Your task to perform on an android device: open chrome and create a bookmark for the current page Image 0: 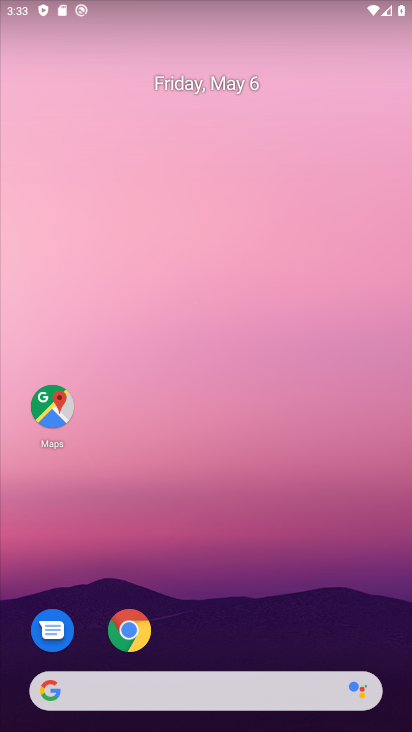
Step 0: click (138, 622)
Your task to perform on an android device: open chrome and create a bookmark for the current page Image 1: 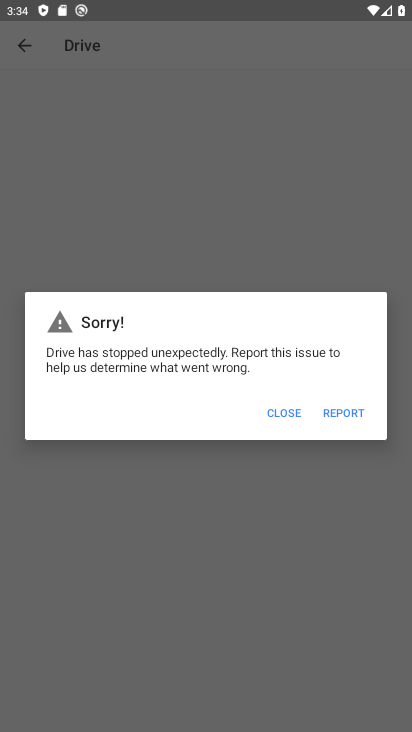
Step 1: press back button
Your task to perform on an android device: open chrome and create a bookmark for the current page Image 2: 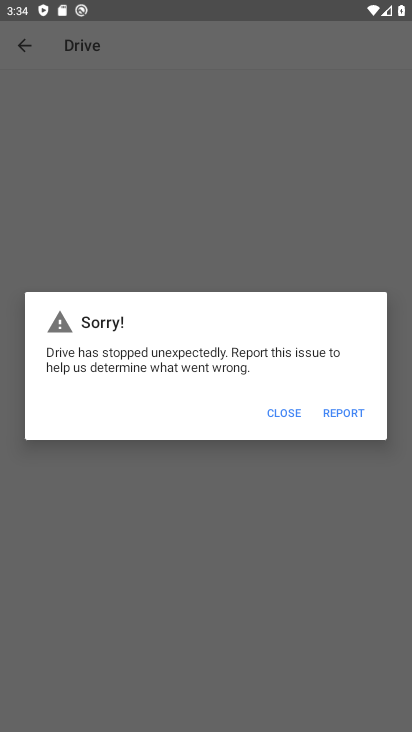
Step 2: press back button
Your task to perform on an android device: open chrome and create a bookmark for the current page Image 3: 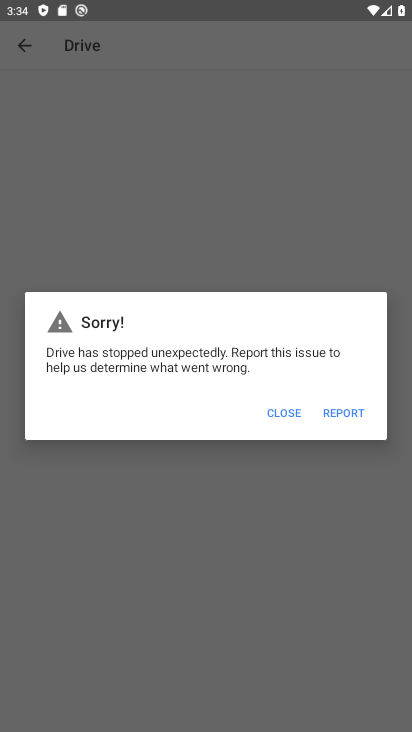
Step 3: press home button
Your task to perform on an android device: open chrome and create a bookmark for the current page Image 4: 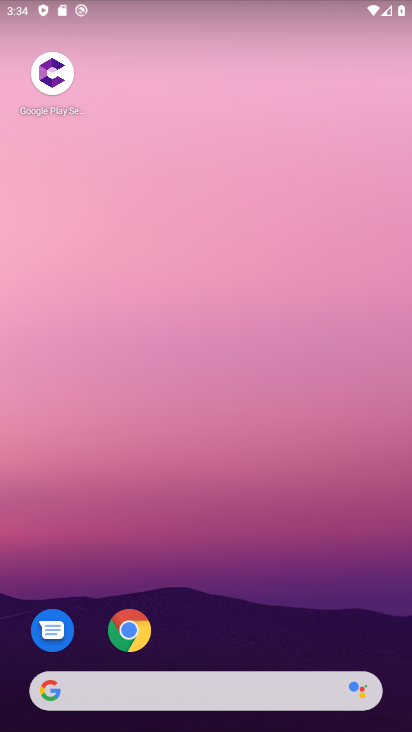
Step 4: click (117, 633)
Your task to perform on an android device: open chrome and create a bookmark for the current page Image 5: 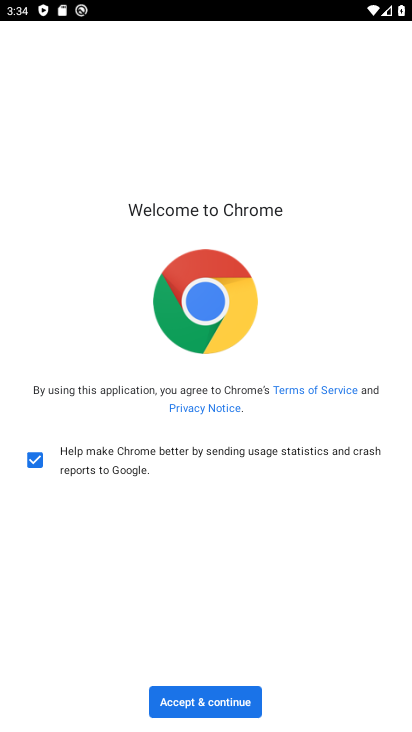
Step 5: click (231, 680)
Your task to perform on an android device: open chrome and create a bookmark for the current page Image 6: 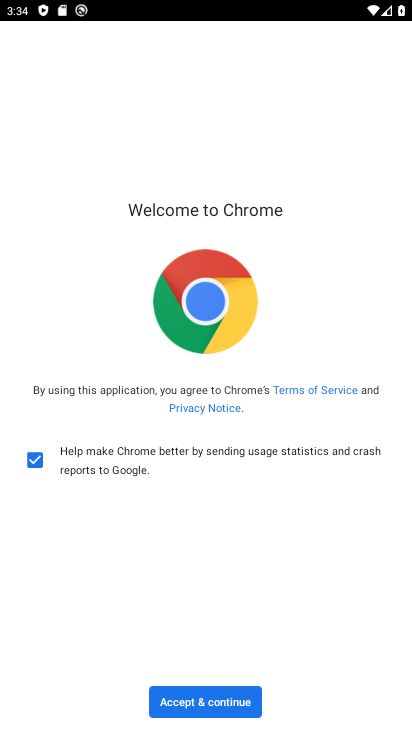
Step 6: click (204, 702)
Your task to perform on an android device: open chrome and create a bookmark for the current page Image 7: 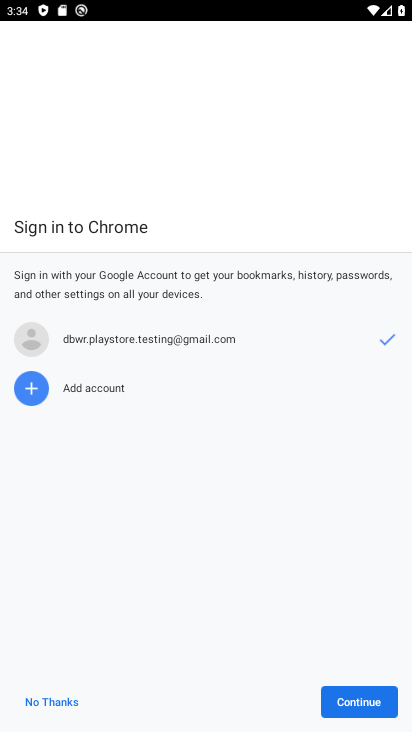
Step 7: click (366, 703)
Your task to perform on an android device: open chrome and create a bookmark for the current page Image 8: 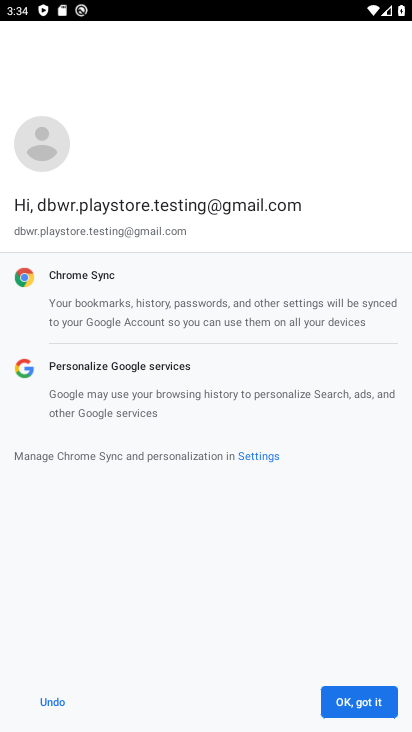
Step 8: click (369, 698)
Your task to perform on an android device: open chrome and create a bookmark for the current page Image 9: 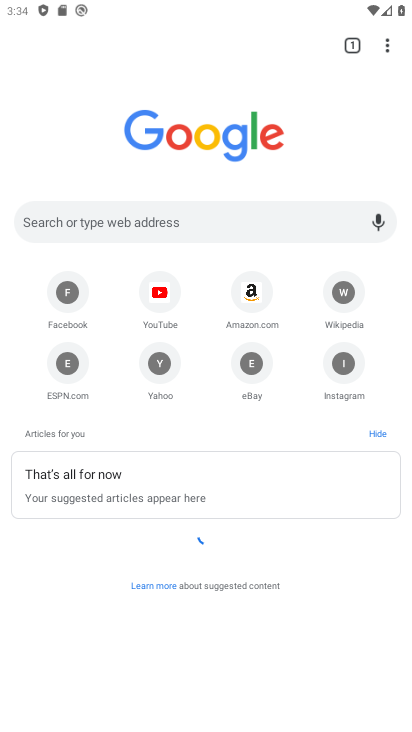
Step 9: click (120, 218)
Your task to perform on an android device: open chrome and create a bookmark for the current page Image 10: 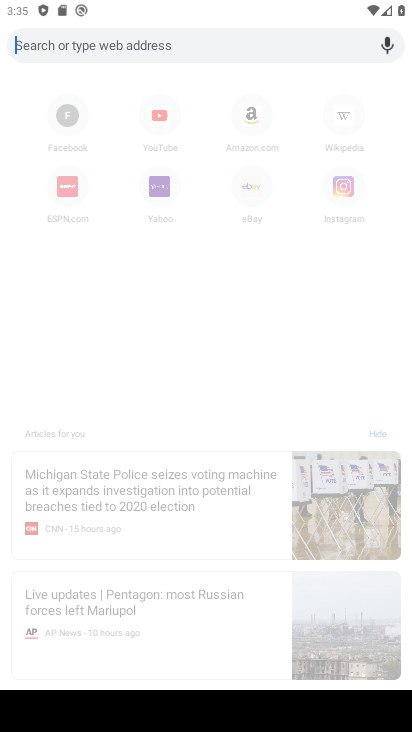
Step 10: type "ola"
Your task to perform on an android device: open chrome and create a bookmark for the current page Image 11: 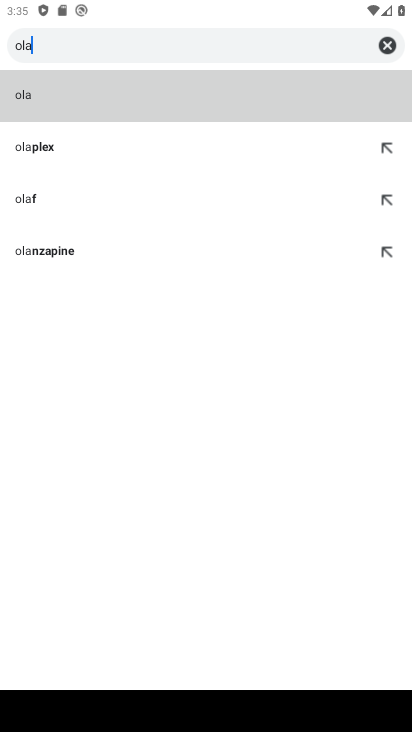
Step 11: click (99, 106)
Your task to perform on an android device: open chrome and create a bookmark for the current page Image 12: 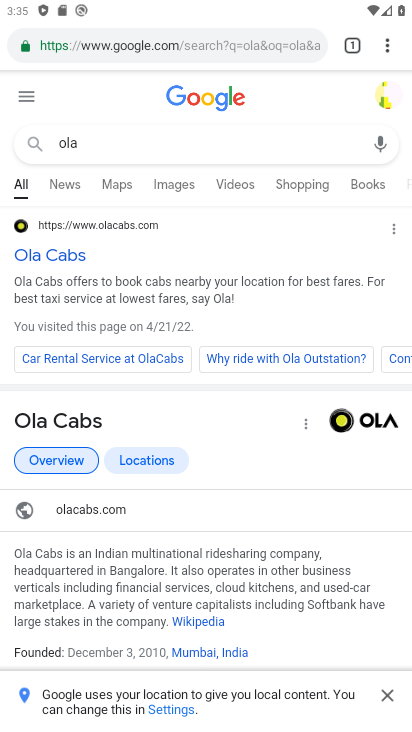
Step 12: click (39, 254)
Your task to perform on an android device: open chrome and create a bookmark for the current page Image 13: 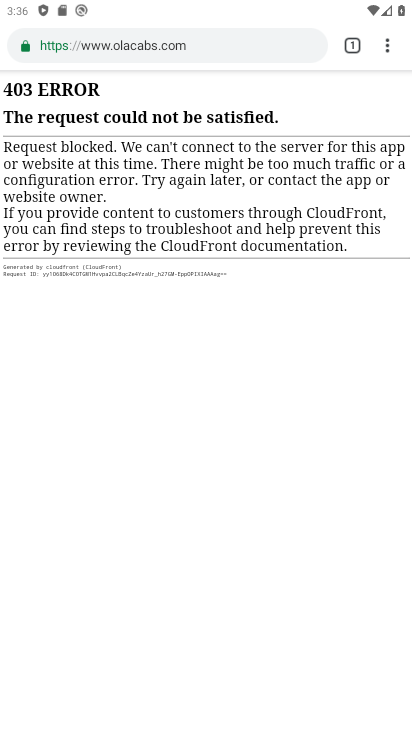
Step 13: task complete